Your task to perform on an android device: Open wifi settings Image 0: 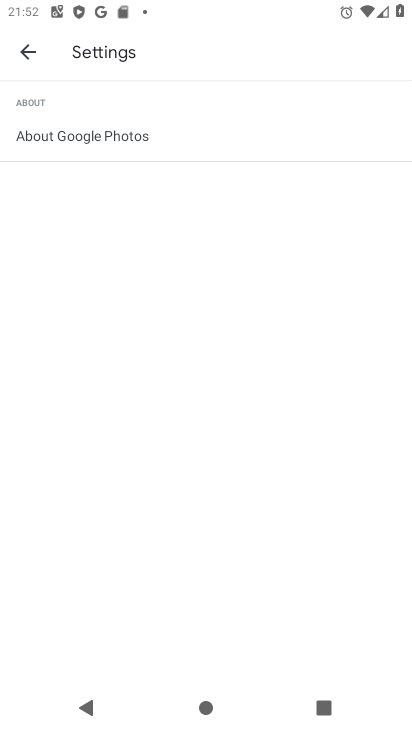
Step 0: press home button
Your task to perform on an android device: Open wifi settings Image 1: 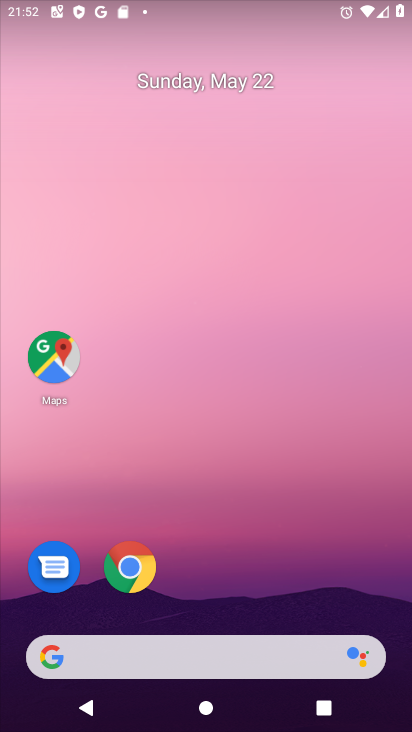
Step 1: drag from (204, 589) to (287, 8)
Your task to perform on an android device: Open wifi settings Image 2: 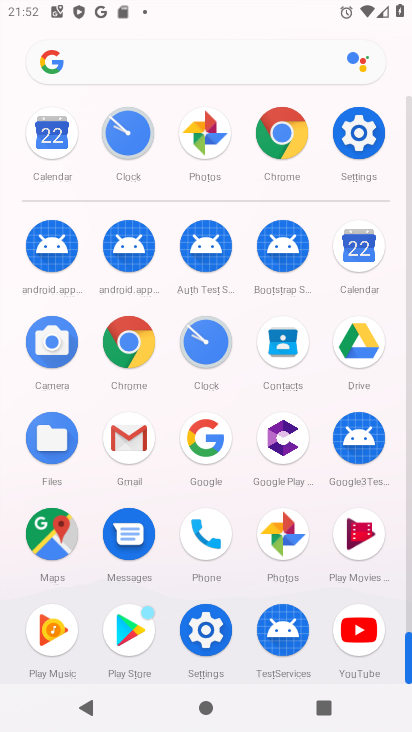
Step 2: click (361, 132)
Your task to perform on an android device: Open wifi settings Image 3: 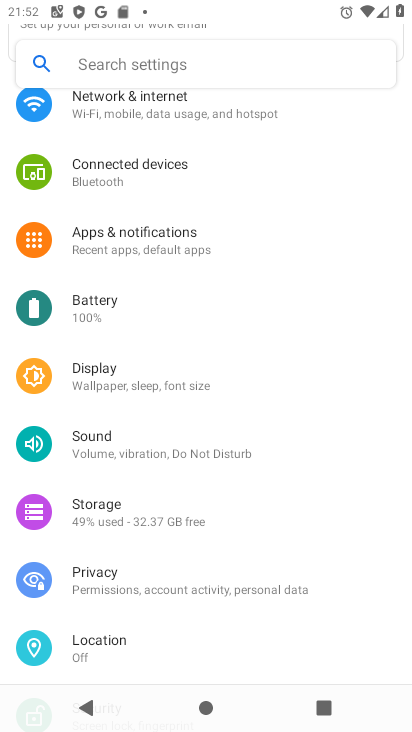
Step 3: click (181, 60)
Your task to perform on an android device: Open wifi settings Image 4: 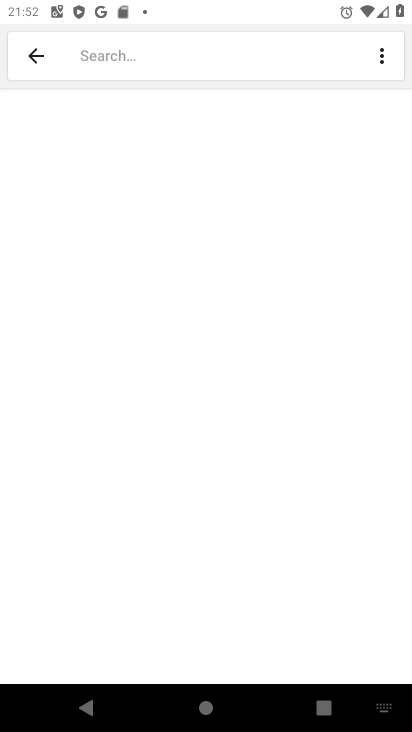
Step 4: click (29, 46)
Your task to perform on an android device: Open wifi settings Image 5: 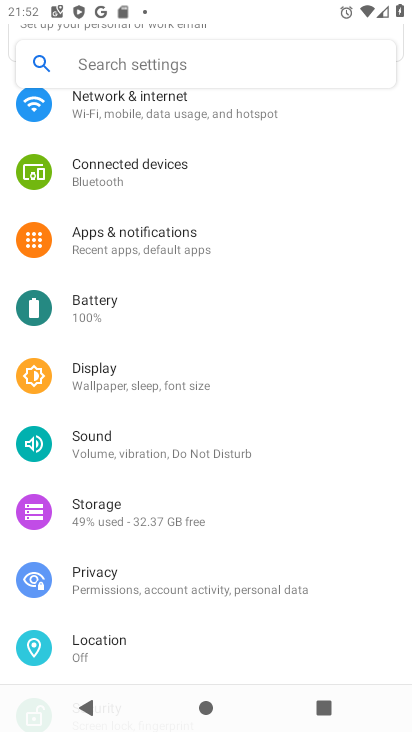
Step 5: drag from (212, 187) to (189, 552)
Your task to perform on an android device: Open wifi settings Image 6: 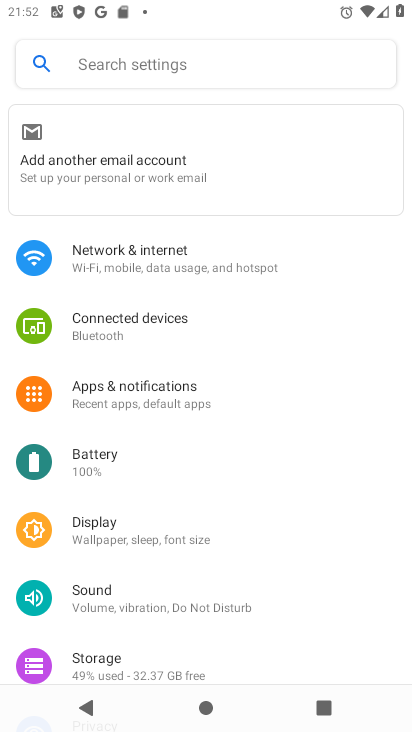
Step 6: click (205, 273)
Your task to perform on an android device: Open wifi settings Image 7: 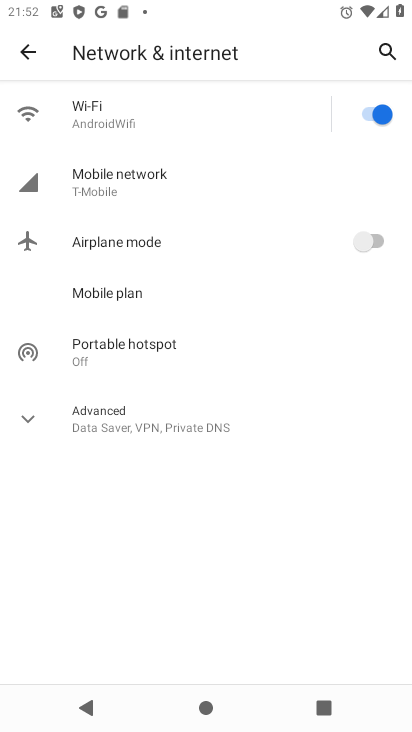
Step 7: click (221, 105)
Your task to perform on an android device: Open wifi settings Image 8: 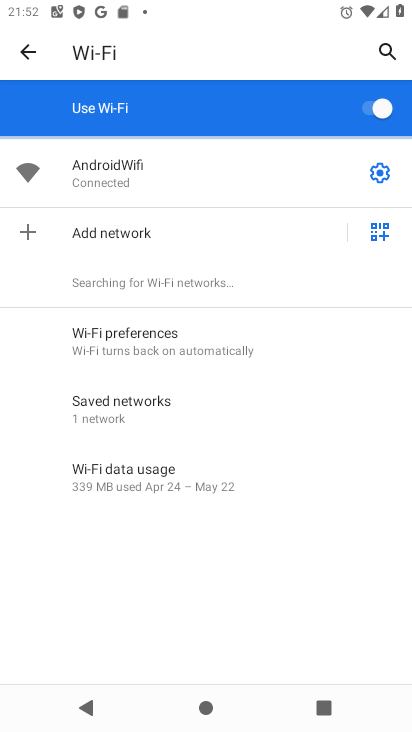
Step 8: task complete